Your task to perform on an android device: turn off data saver in the chrome app Image 0: 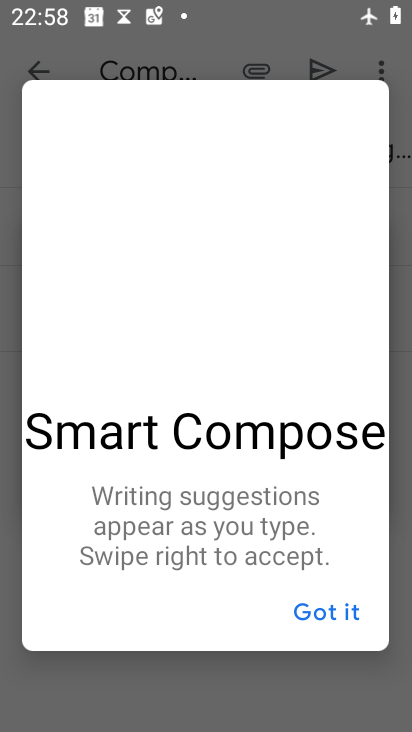
Step 0: press home button
Your task to perform on an android device: turn off data saver in the chrome app Image 1: 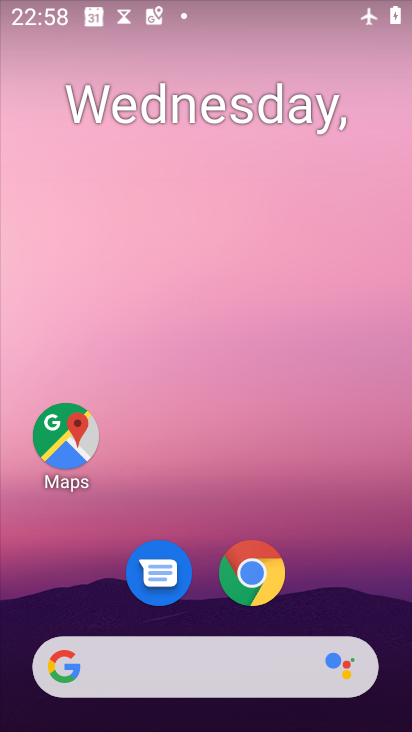
Step 1: click (240, 569)
Your task to perform on an android device: turn off data saver in the chrome app Image 2: 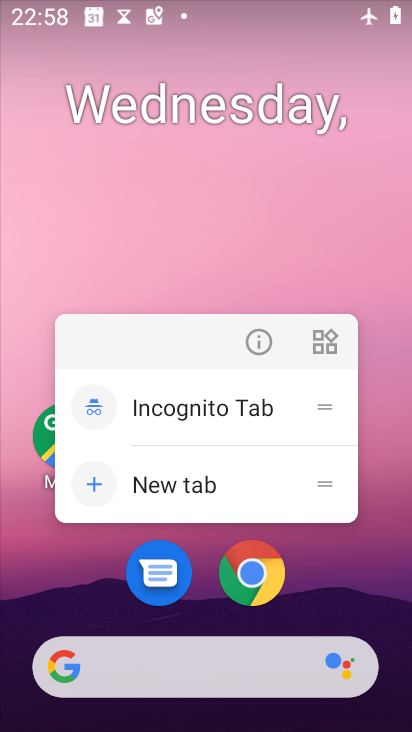
Step 2: click (282, 554)
Your task to perform on an android device: turn off data saver in the chrome app Image 3: 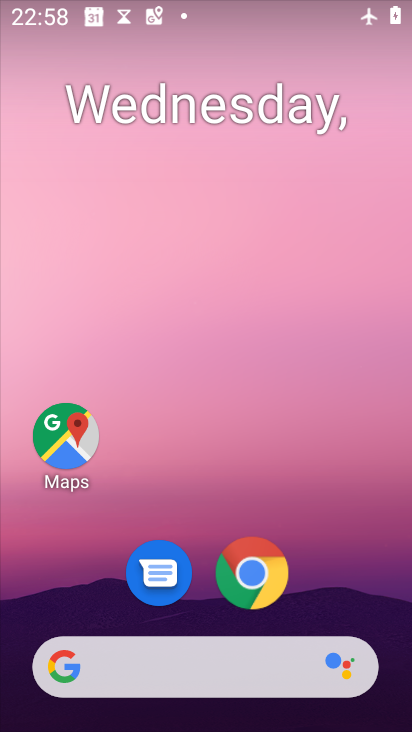
Step 3: click (270, 554)
Your task to perform on an android device: turn off data saver in the chrome app Image 4: 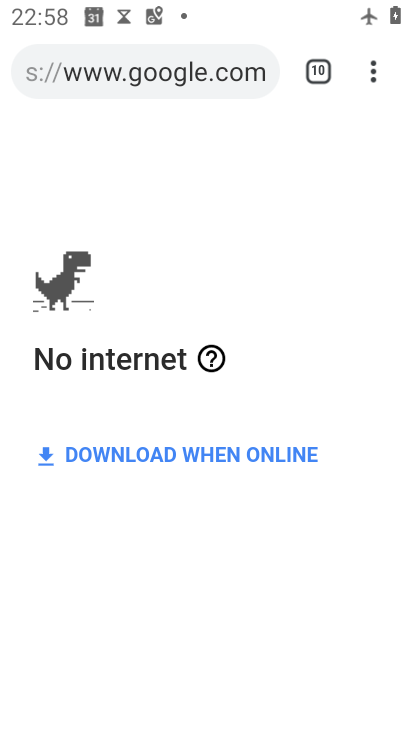
Step 4: click (369, 61)
Your task to perform on an android device: turn off data saver in the chrome app Image 5: 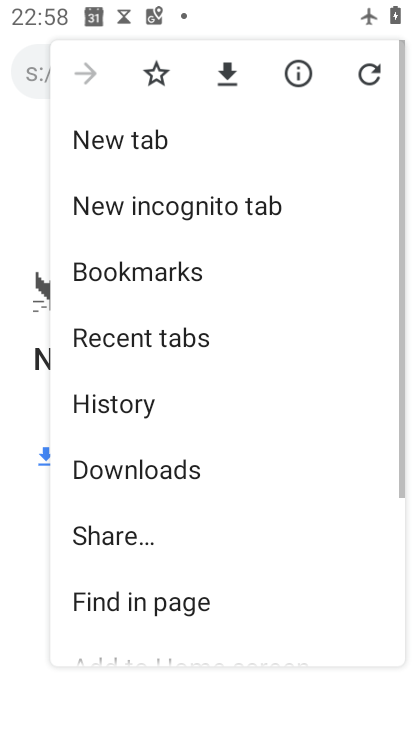
Step 5: drag from (184, 588) to (217, 245)
Your task to perform on an android device: turn off data saver in the chrome app Image 6: 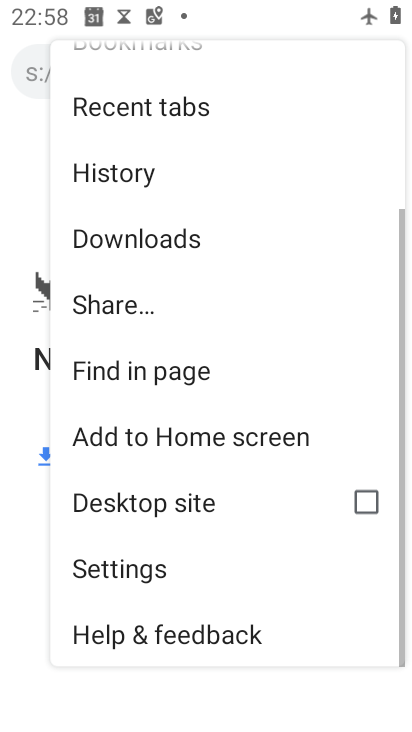
Step 6: click (154, 574)
Your task to perform on an android device: turn off data saver in the chrome app Image 7: 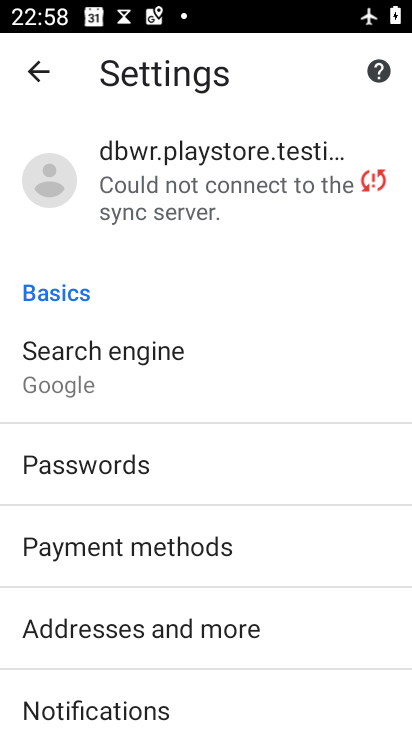
Step 7: drag from (236, 601) to (253, 243)
Your task to perform on an android device: turn off data saver in the chrome app Image 8: 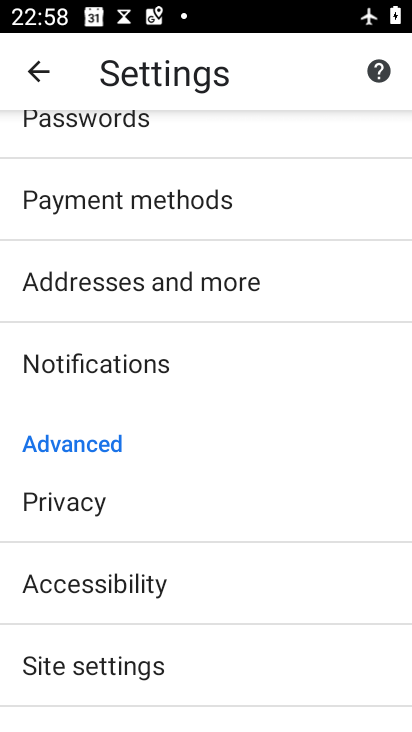
Step 8: drag from (167, 405) to (184, 214)
Your task to perform on an android device: turn off data saver in the chrome app Image 9: 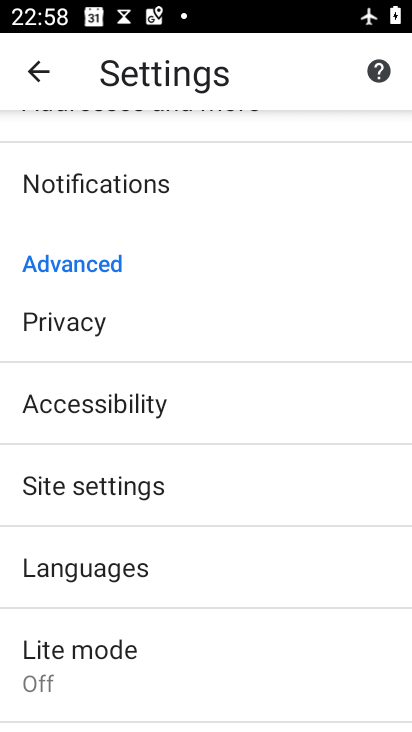
Step 9: drag from (108, 653) to (132, 361)
Your task to perform on an android device: turn off data saver in the chrome app Image 10: 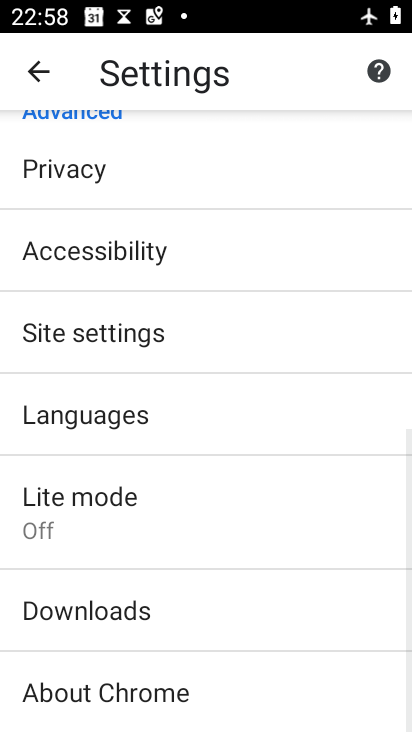
Step 10: click (110, 517)
Your task to perform on an android device: turn off data saver in the chrome app Image 11: 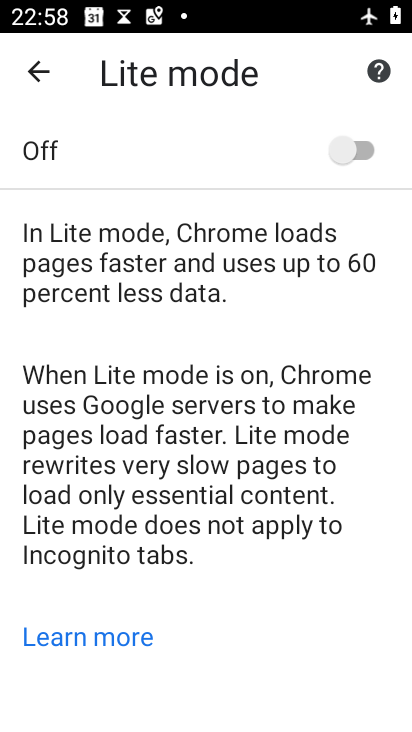
Step 11: click (345, 150)
Your task to perform on an android device: turn off data saver in the chrome app Image 12: 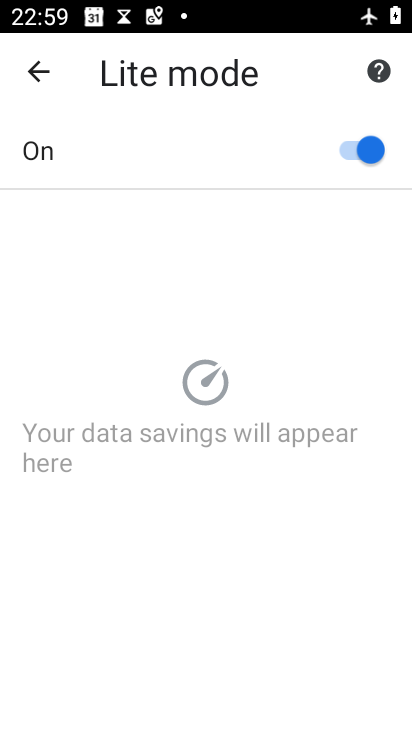
Step 12: task complete